Your task to perform on an android device: stop showing notifications on the lock screen Image 0: 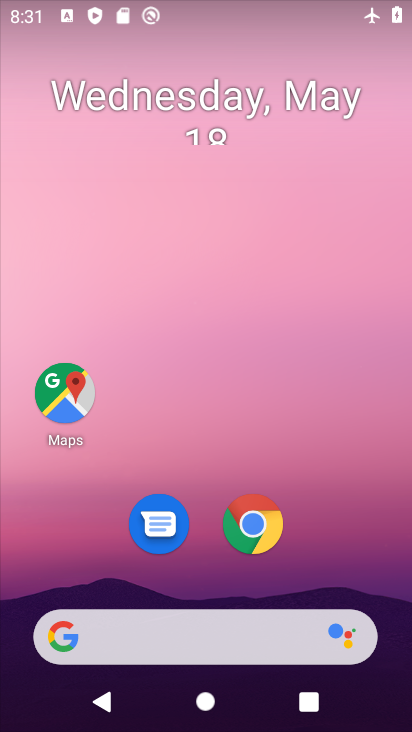
Step 0: drag from (326, 560) to (380, 40)
Your task to perform on an android device: stop showing notifications on the lock screen Image 1: 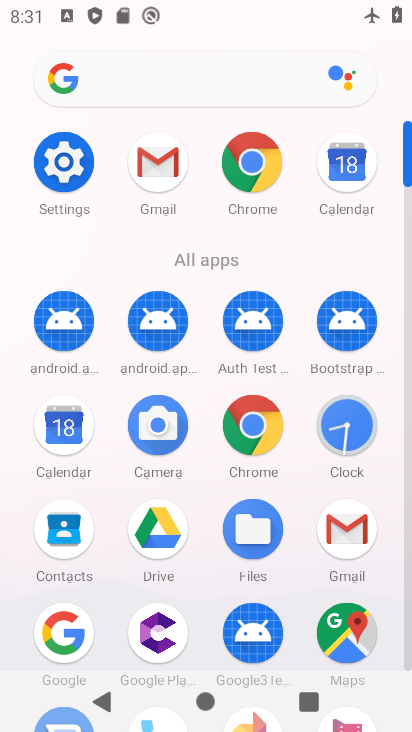
Step 1: click (75, 158)
Your task to perform on an android device: stop showing notifications on the lock screen Image 2: 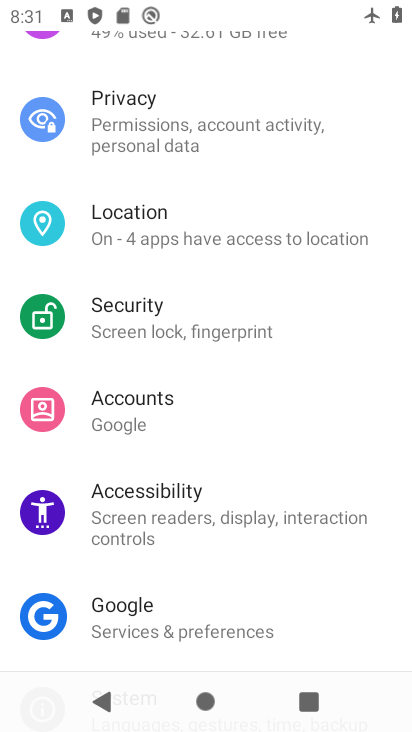
Step 2: drag from (208, 187) to (201, 554)
Your task to perform on an android device: stop showing notifications on the lock screen Image 3: 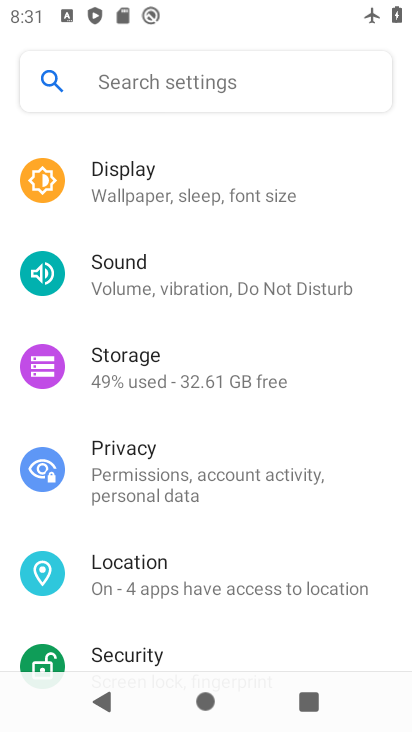
Step 3: drag from (238, 257) to (225, 601)
Your task to perform on an android device: stop showing notifications on the lock screen Image 4: 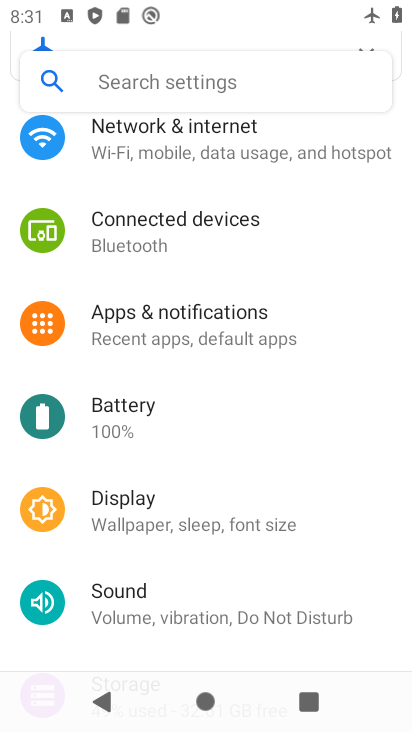
Step 4: click (220, 337)
Your task to perform on an android device: stop showing notifications on the lock screen Image 5: 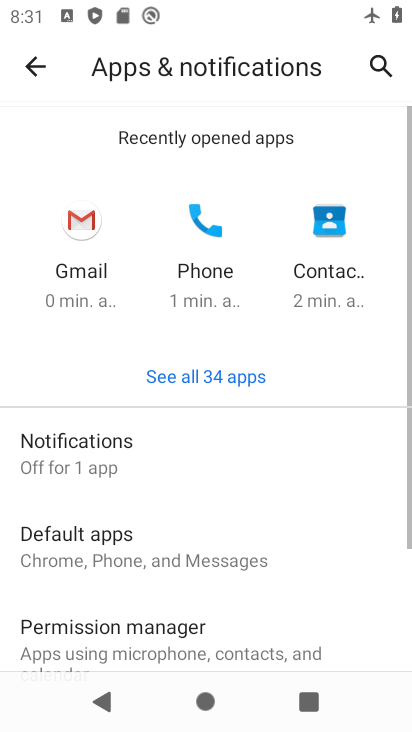
Step 5: drag from (200, 471) to (232, 238)
Your task to perform on an android device: stop showing notifications on the lock screen Image 6: 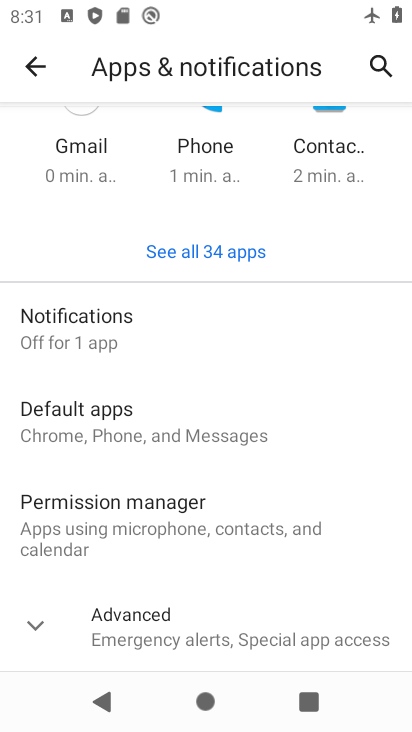
Step 6: click (193, 320)
Your task to perform on an android device: stop showing notifications on the lock screen Image 7: 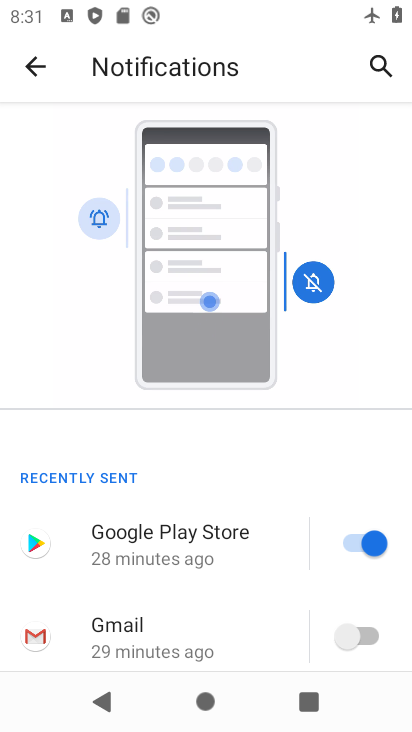
Step 7: drag from (204, 586) to (255, 138)
Your task to perform on an android device: stop showing notifications on the lock screen Image 8: 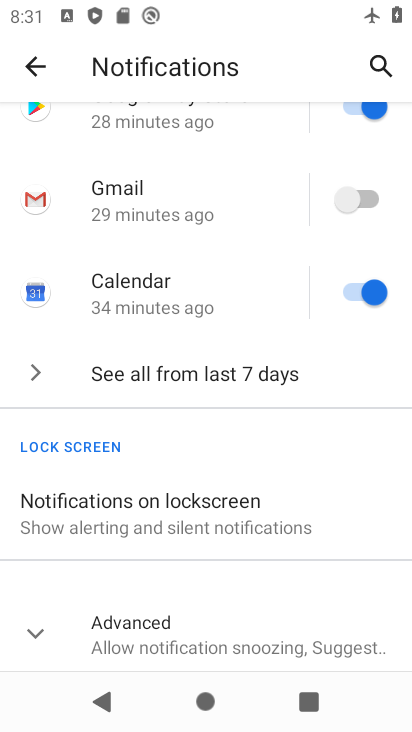
Step 8: click (160, 503)
Your task to perform on an android device: stop showing notifications on the lock screen Image 9: 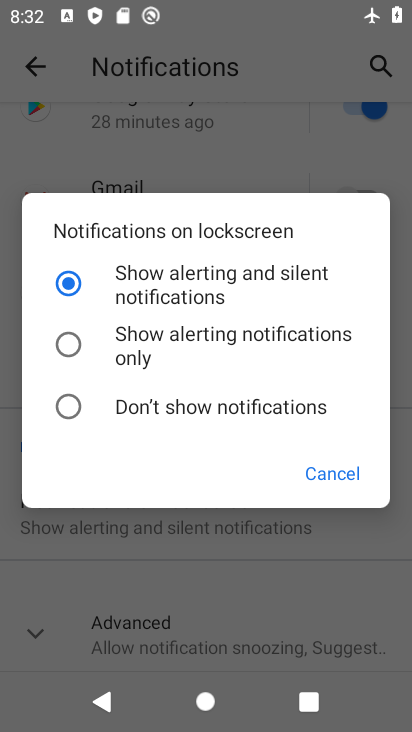
Step 9: click (67, 399)
Your task to perform on an android device: stop showing notifications on the lock screen Image 10: 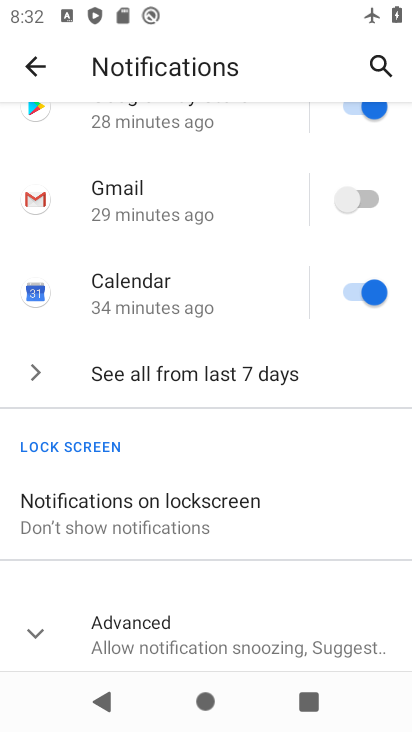
Step 10: task complete